Your task to perform on an android device: change notification settings in the gmail app Image 0: 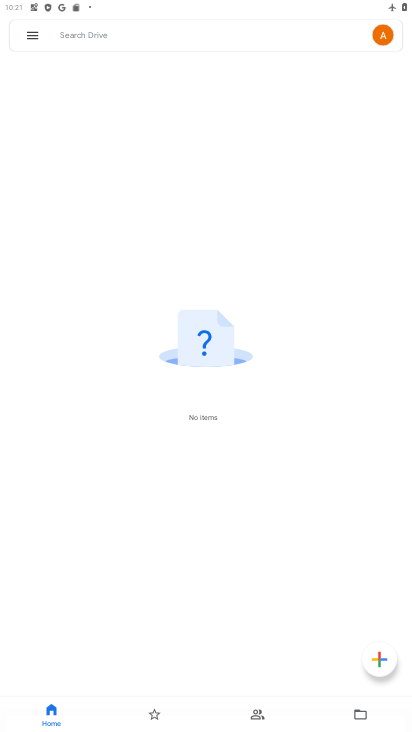
Step 0: press home button
Your task to perform on an android device: change notification settings in the gmail app Image 1: 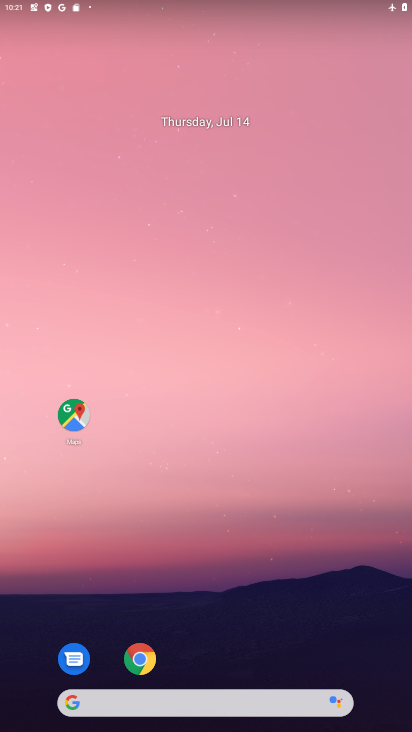
Step 1: drag from (260, 604) to (176, 133)
Your task to perform on an android device: change notification settings in the gmail app Image 2: 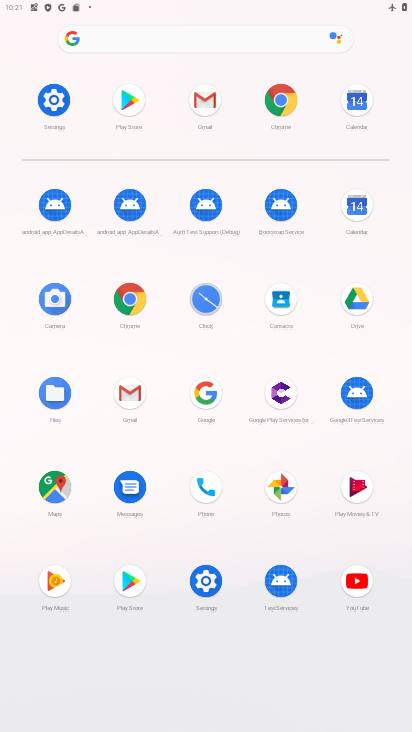
Step 2: click (204, 99)
Your task to perform on an android device: change notification settings in the gmail app Image 3: 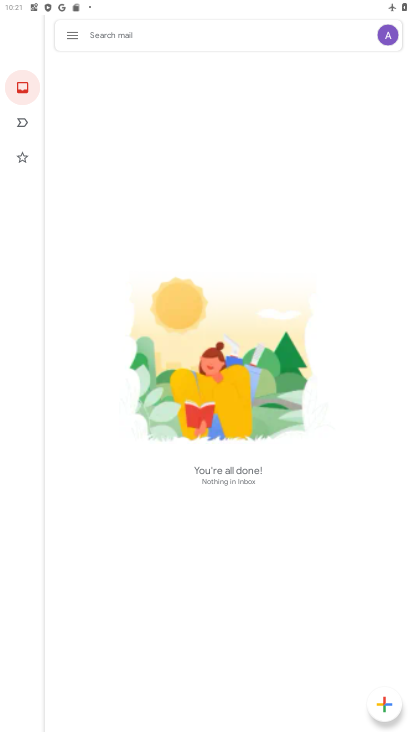
Step 3: click (71, 35)
Your task to perform on an android device: change notification settings in the gmail app Image 4: 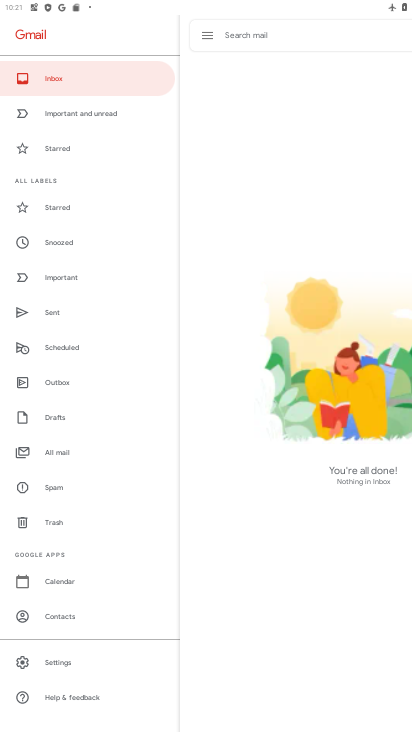
Step 4: click (68, 665)
Your task to perform on an android device: change notification settings in the gmail app Image 5: 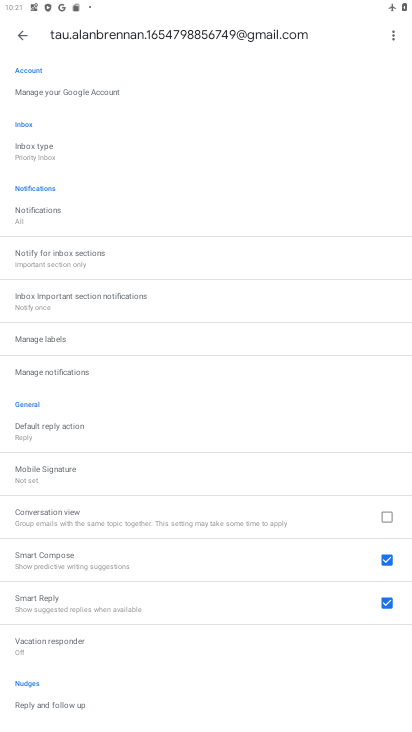
Step 5: click (72, 369)
Your task to perform on an android device: change notification settings in the gmail app Image 6: 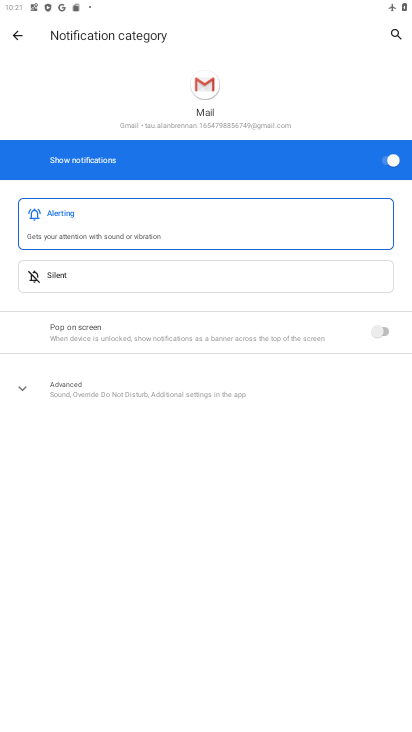
Step 6: click (386, 155)
Your task to perform on an android device: change notification settings in the gmail app Image 7: 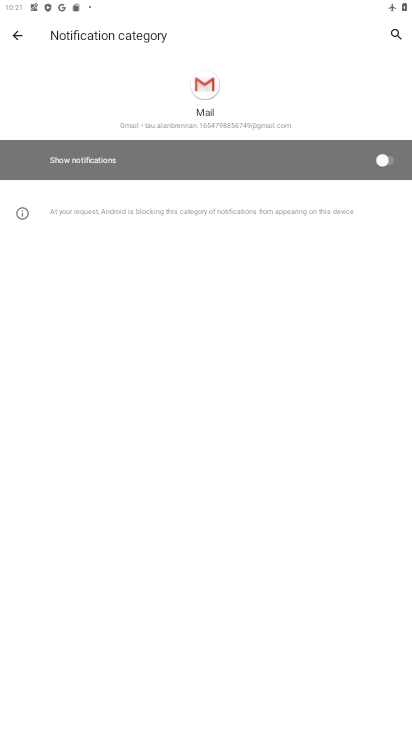
Step 7: task complete